Your task to perform on an android device: Search for vegetarian restaurants on Maps Image 0: 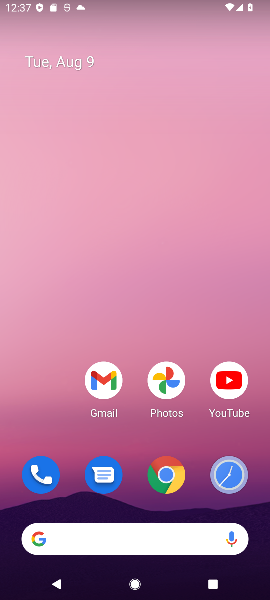
Step 0: drag from (120, 437) to (182, 51)
Your task to perform on an android device: Search for vegetarian restaurants on Maps Image 1: 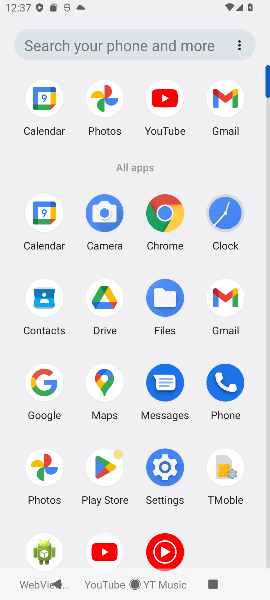
Step 1: click (105, 372)
Your task to perform on an android device: Search for vegetarian restaurants on Maps Image 2: 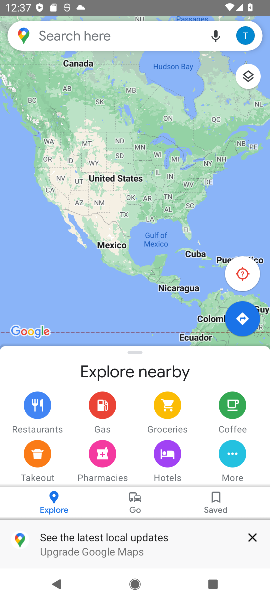
Step 2: click (84, 32)
Your task to perform on an android device: Search for vegetarian restaurants on Maps Image 3: 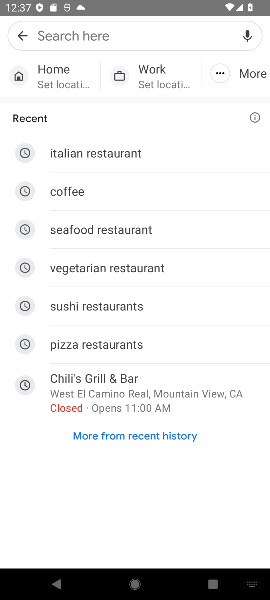
Step 3: type "vegetarian restaurants"
Your task to perform on an android device: Search for vegetarian restaurants on Maps Image 4: 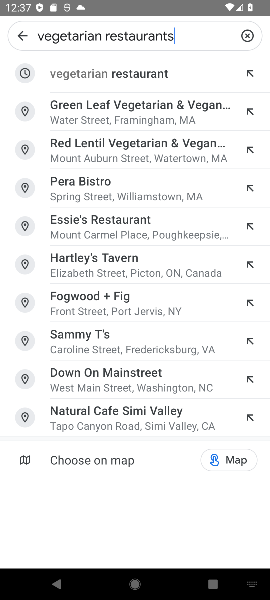
Step 4: click (101, 75)
Your task to perform on an android device: Search for vegetarian restaurants on Maps Image 5: 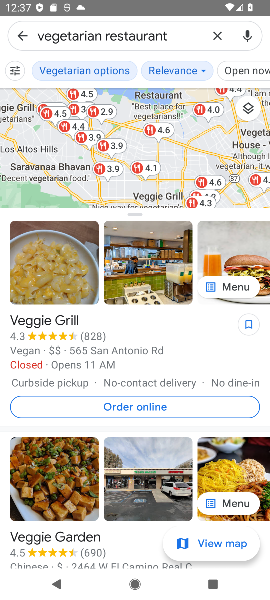
Step 5: task complete